Your task to perform on an android device: turn off location history Image 0: 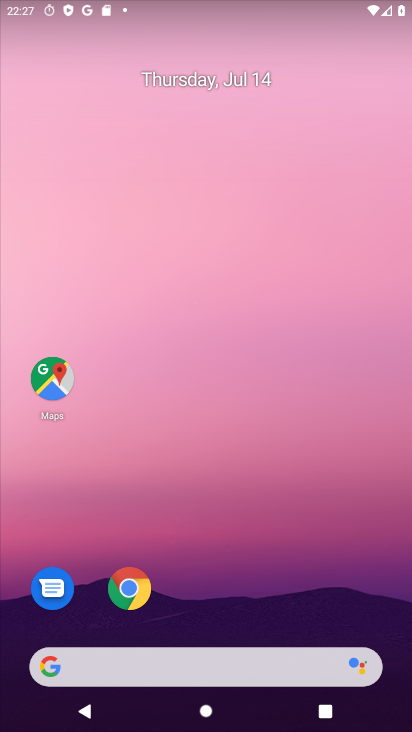
Step 0: drag from (245, 609) to (258, 257)
Your task to perform on an android device: turn off location history Image 1: 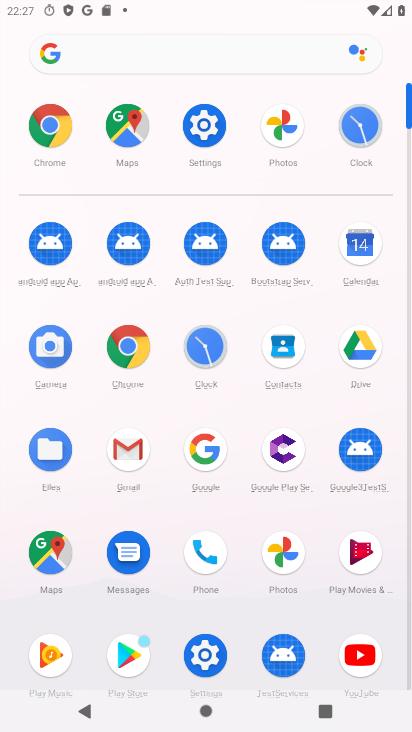
Step 1: click (203, 122)
Your task to perform on an android device: turn off location history Image 2: 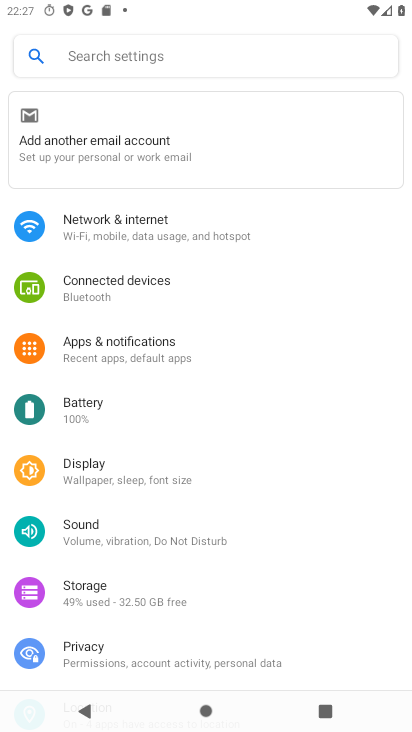
Step 2: drag from (190, 593) to (210, 218)
Your task to perform on an android device: turn off location history Image 3: 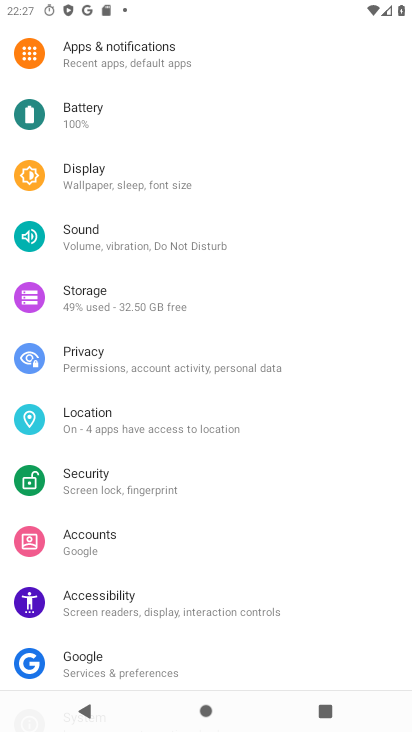
Step 3: click (111, 425)
Your task to perform on an android device: turn off location history Image 4: 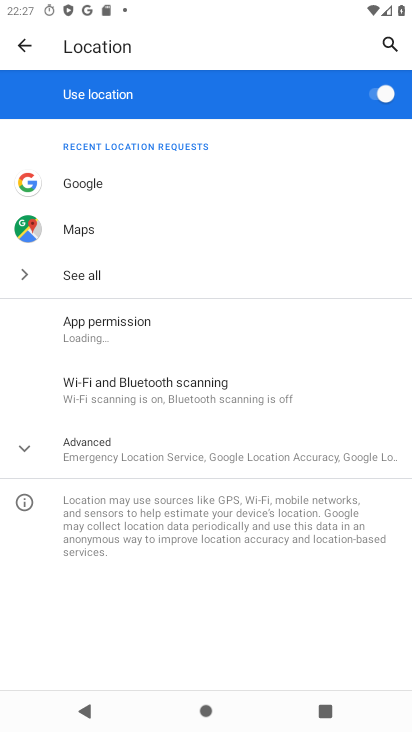
Step 4: click (107, 456)
Your task to perform on an android device: turn off location history Image 5: 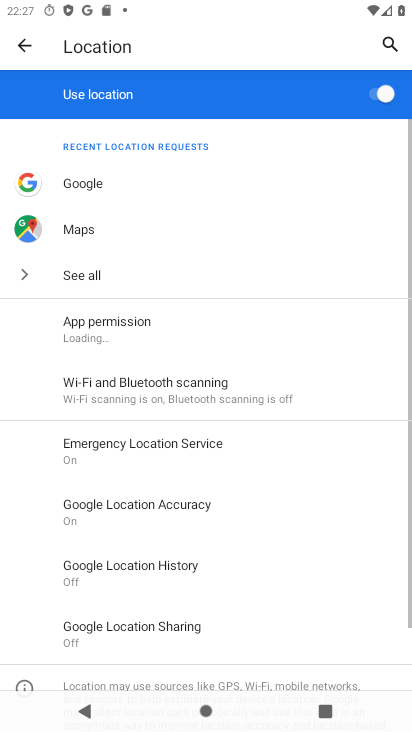
Step 5: click (177, 568)
Your task to perform on an android device: turn off location history Image 6: 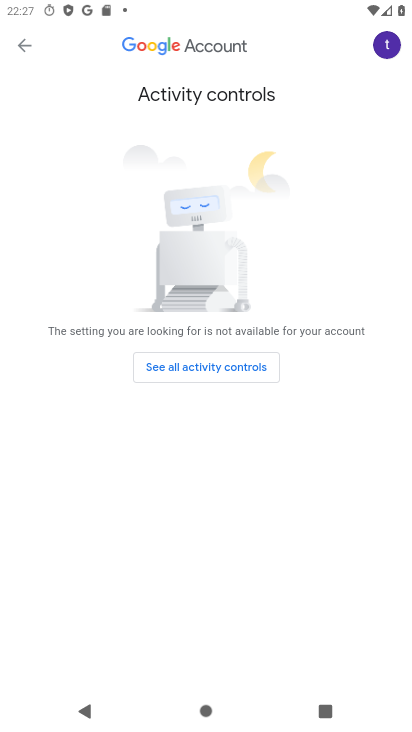
Step 6: task complete